Your task to perform on an android device: turn pop-ups on in chrome Image 0: 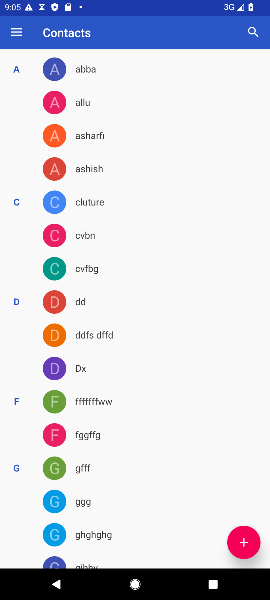
Step 0: press home button
Your task to perform on an android device: turn pop-ups on in chrome Image 1: 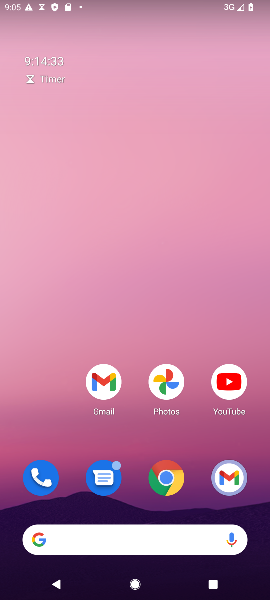
Step 1: click (164, 492)
Your task to perform on an android device: turn pop-ups on in chrome Image 2: 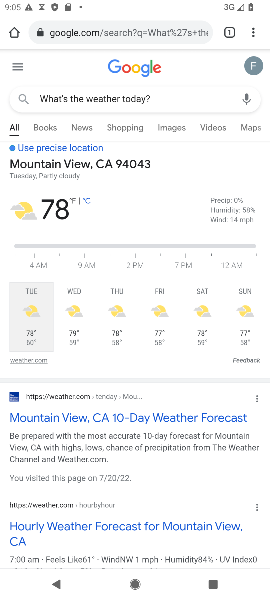
Step 2: click (250, 37)
Your task to perform on an android device: turn pop-ups on in chrome Image 3: 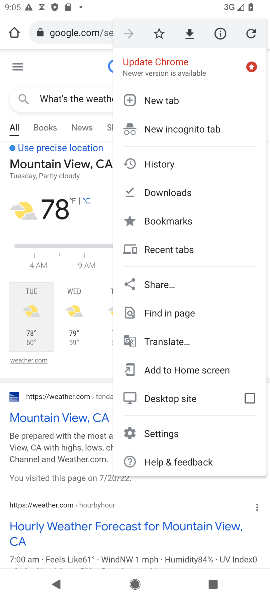
Step 3: click (172, 434)
Your task to perform on an android device: turn pop-ups on in chrome Image 4: 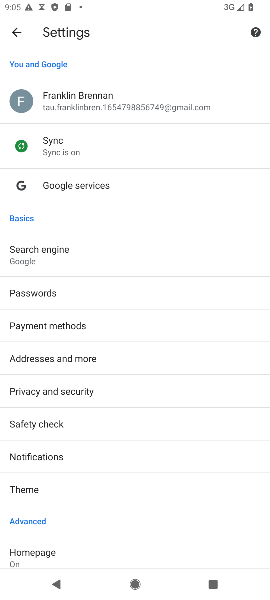
Step 4: drag from (77, 505) to (94, 79)
Your task to perform on an android device: turn pop-ups on in chrome Image 5: 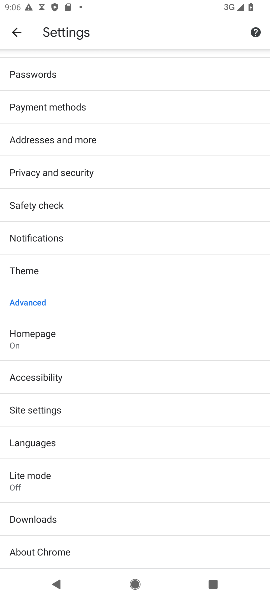
Step 5: click (86, 414)
Your task to perform on an android device: turn pop-ups on in chrome Image 6: 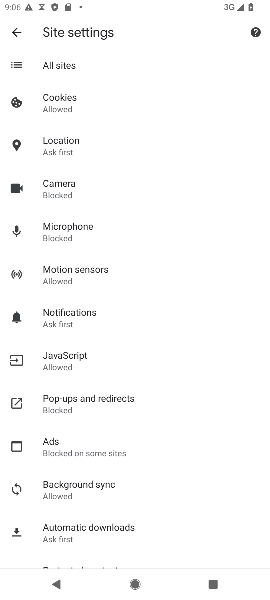
Step 6: click (60, 412)
Your task to perform on an android device: turn pop-ups on in chrome Image 7: 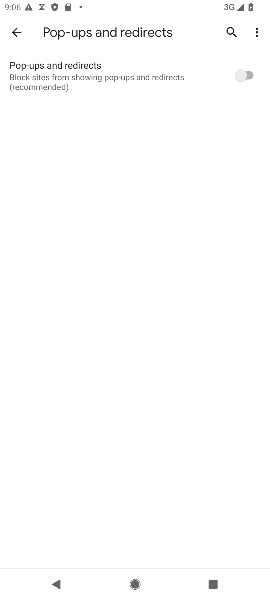
Step 7: click (254, 82)
Your task to perform on an android device: turn pop-ups on in chrome Image 8: 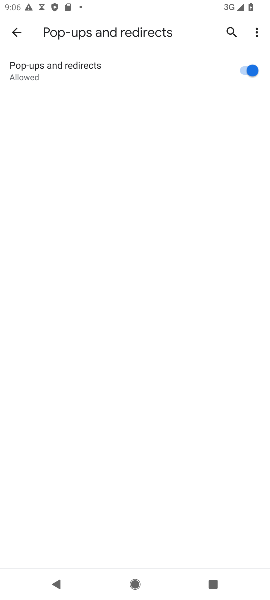
Step 8: task complete